Your task to perform on an android device: clear all cookies in the chrome app Image 0: 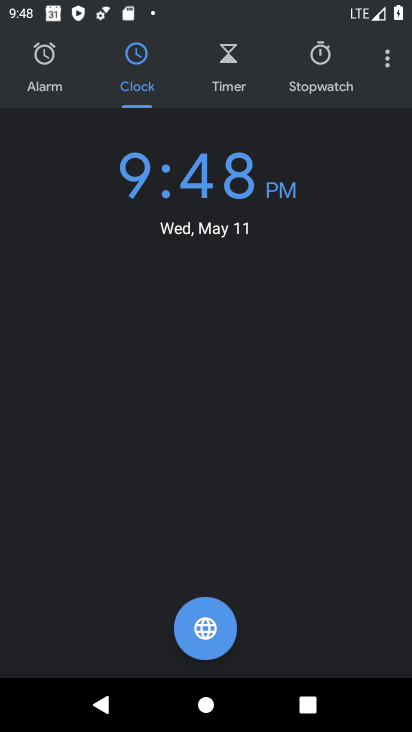
Step 0: press home button
Your task to perform on an android device: clear all cookies in the chrome app Image 1: 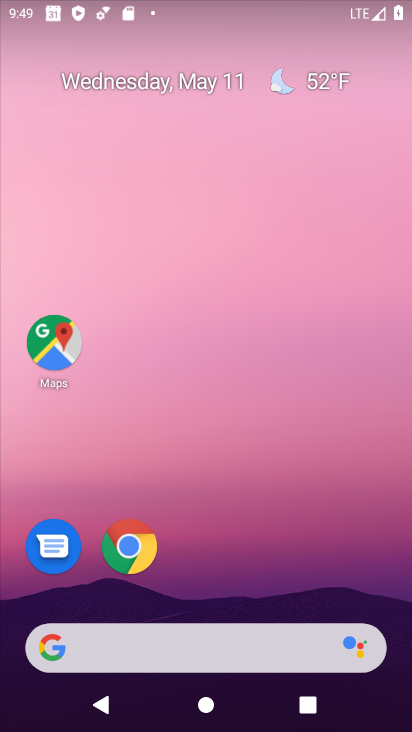
Step 1: click (130, 568)
Your task to perform on an android device: clear all cookies in the chrome app Image 2: 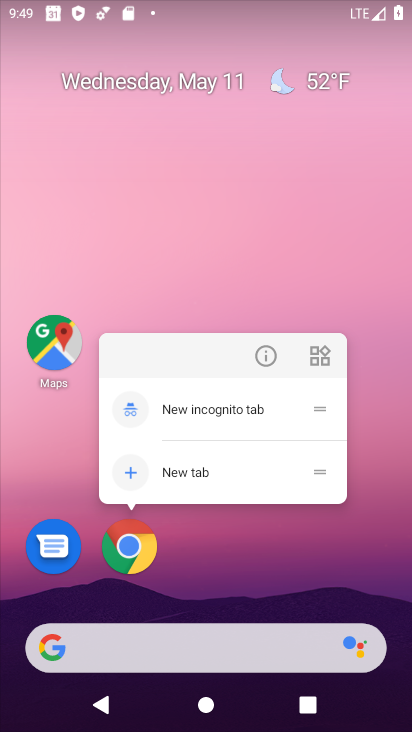
Step 2: click (132, 548)
Your task to perform on an android device: clear all cookies in the chrome app Image 3: 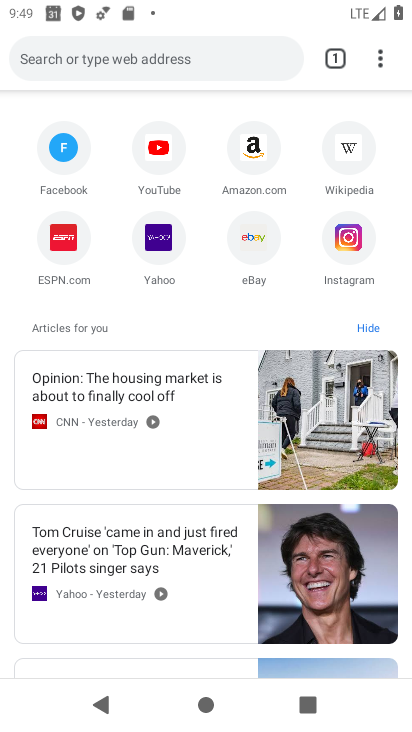
Step 3: drag from (381, 57) to (211, 555)
Your task to perform on an android device: clear all cookies in the chrome app Image 4: 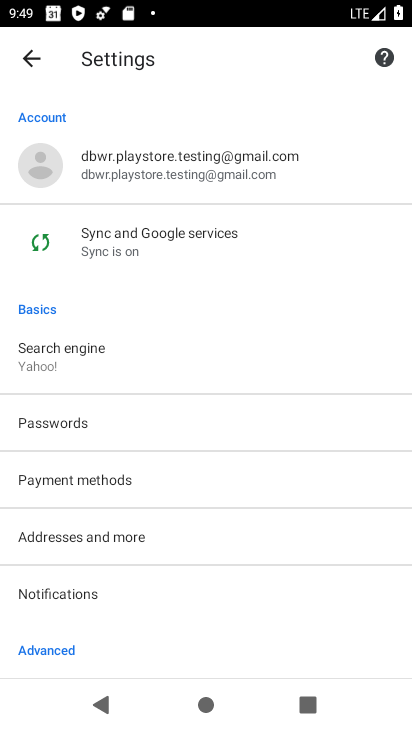
Step 4: drag from (112, 590) to (74, 177)
Your task to perform on an android device: clear all cookies in the chrome app Image 5: 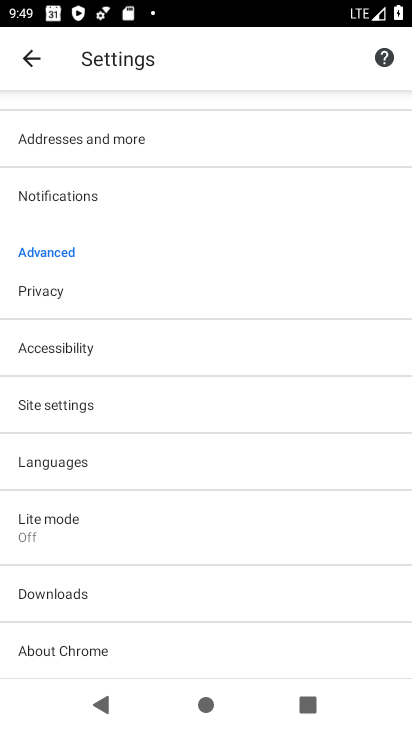
Step 5: click (52, 278)
Your task to perform on an android device: clear all cookies in the chrome app Image 6: 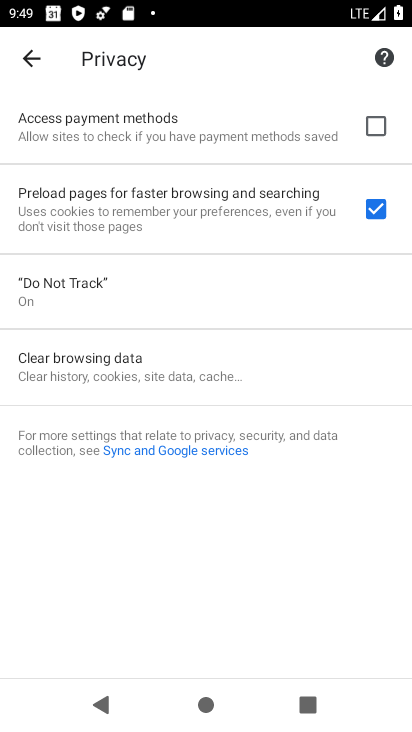
Step 6: drag from (131, 539) to (63, 200)
Your task to perform on an android device: clear all cookies in the chrome app Image 7: 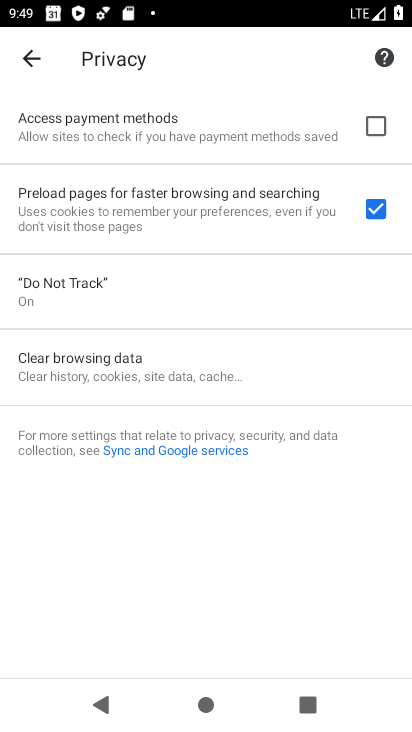
Step 7: click (128, 368)
Your task to perform on an android device: clear all cookies in the chrome app Image 8: 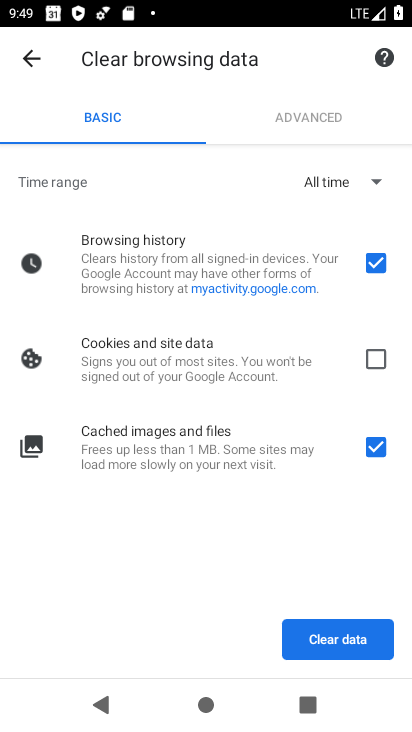
Step 8: click (380, 353)
Your task to perform on an android device: clear all cookies in the chrome app Image 9: 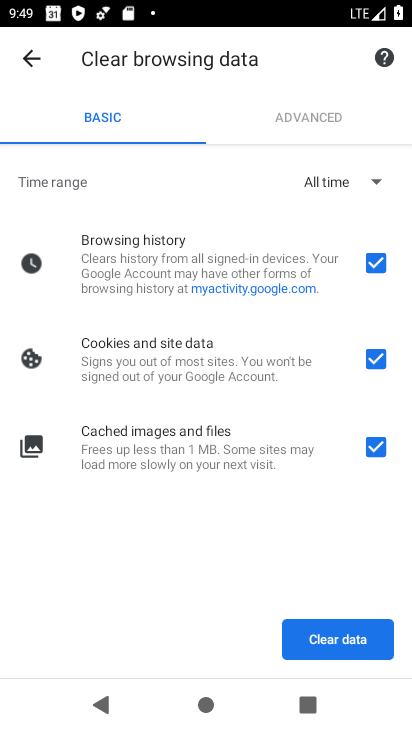
Step 9: click (373, 259)
Your task to perform on an android device: clear all cookies in the chrome app Image 10: 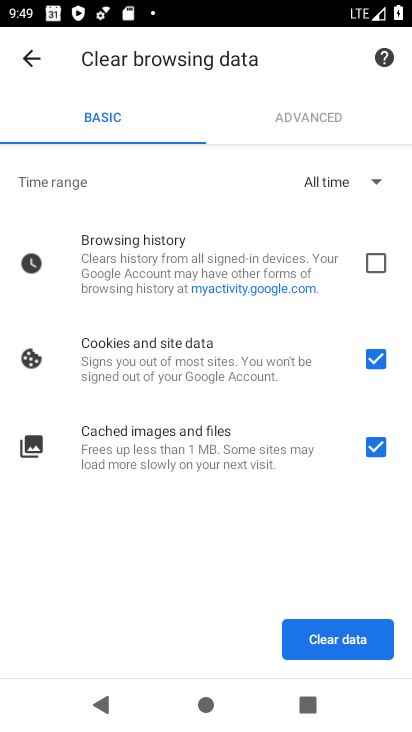
Step 10: click (333, 618)
Your task to perform on an android device: clear all cookies in the chrome app Image 11: 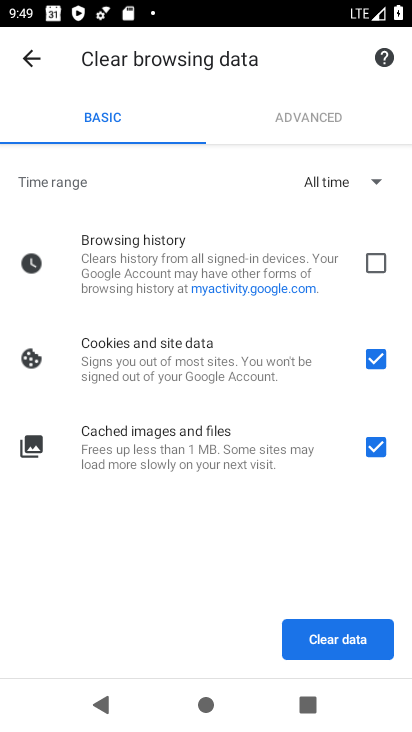
Step 11: click (333, 618)
Your task to perform on an android device: clear all cookies in the chrome app Image 12: 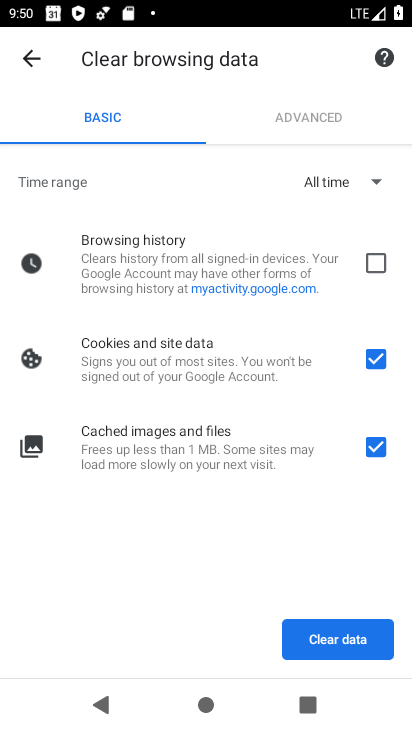
Step 12: click (344, 649)
Your task to perform on an android device: clear all cookies in the chrome app Image 13: 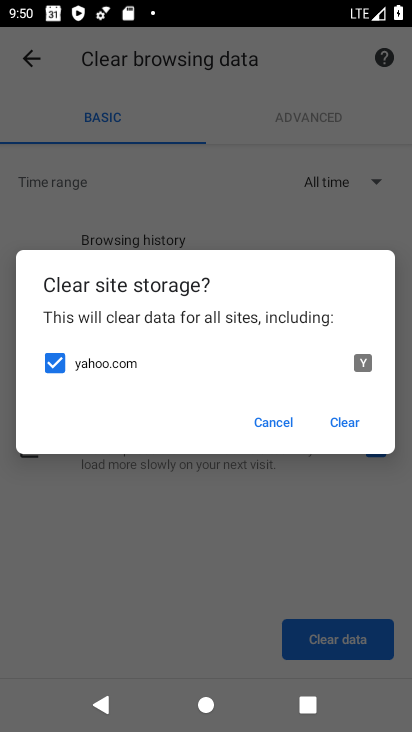
Step 13: click (345, 427)
Your task to perform on an android device: clear all cookies in the chrome app Image 14: 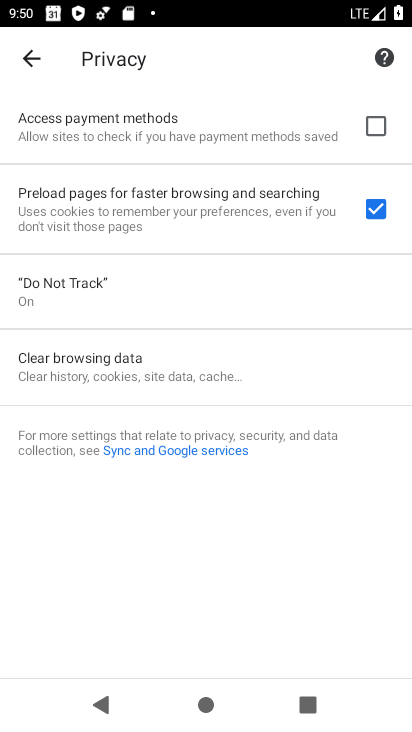
Step 14: task complete